Your task to perform on an android device: turn off location history Image 0: 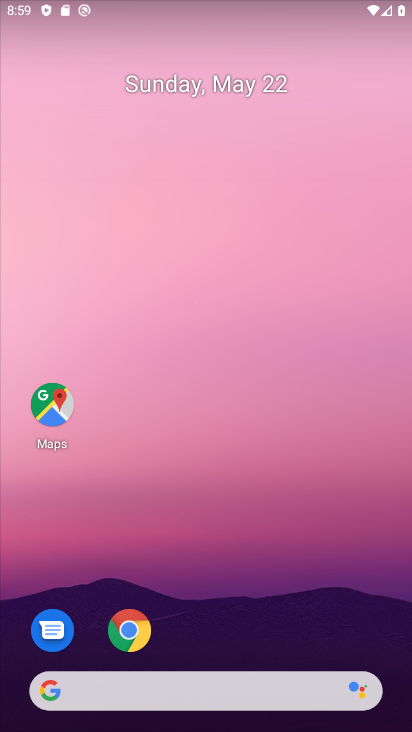
Step 0: drag from (397, 627) to (388, 116)
Your task to perform on an android device: turn off location history Image 1: 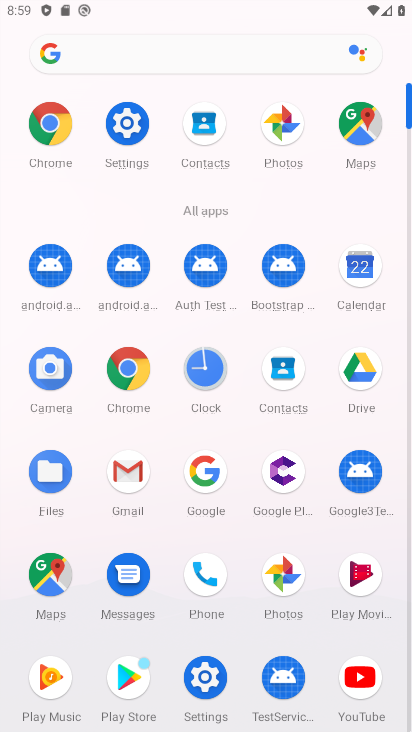
Step 1: click (132, 118)
Your task to perform on an android device: turn off location history Image 2: 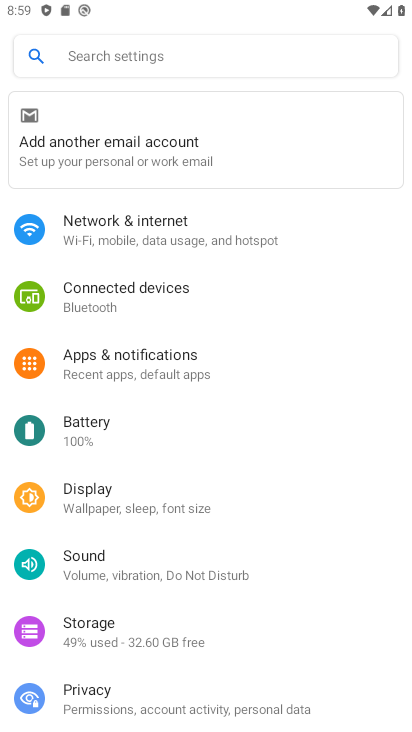
Step 2: drag from (346, 684) to (345, 247)
Your task to perform on an android device: turn off location history Image 3: 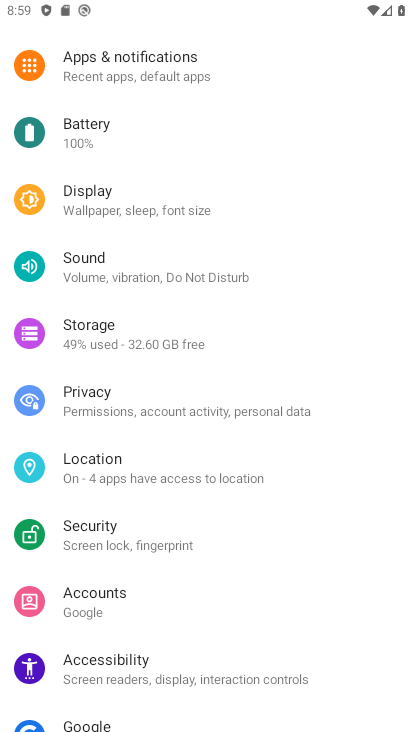
Step 3: click (132, 588)
Your task to perform on an android device: turn off location history Image 4: 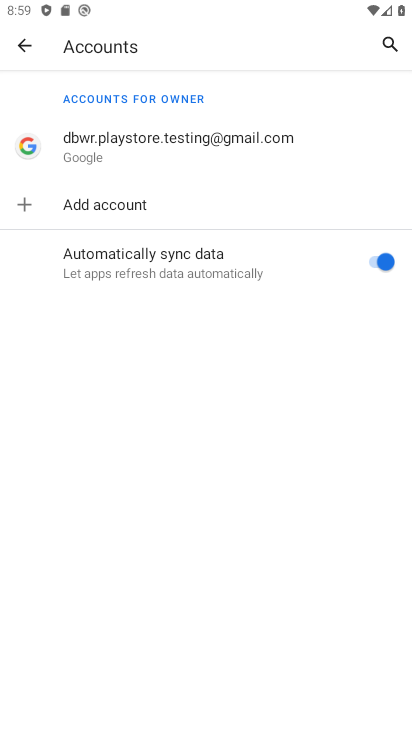
Step 4: click (27, 47)
Your task to perform on an android device: turn off location history Image 5: 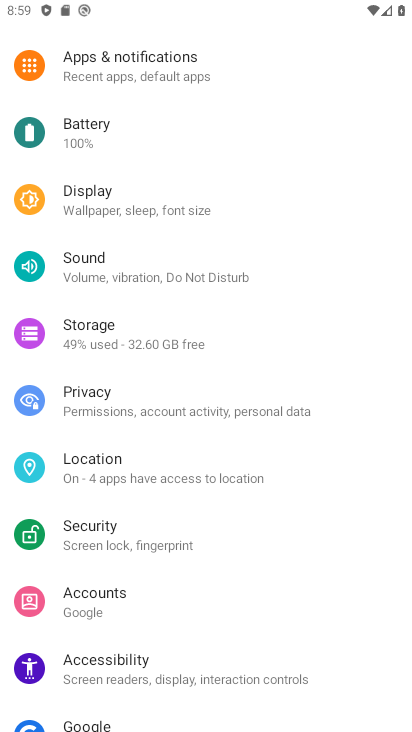
Step 5: click (101, 469)
Your task to perform on an android device: turn off location history Image 6: 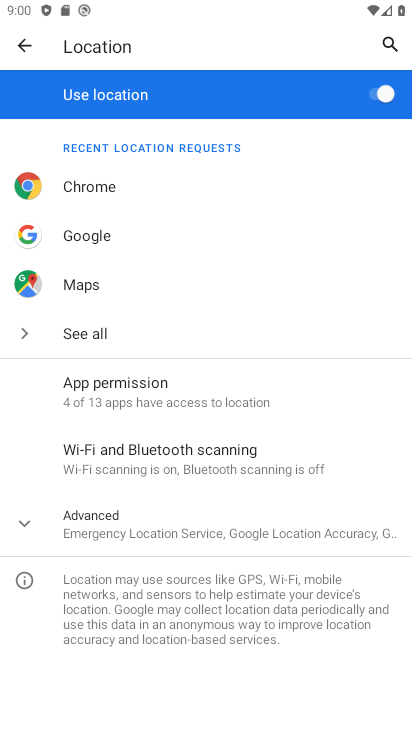
Step 6: click (28, 524)
Your task to perform on an android device: turn off location history Image 7: 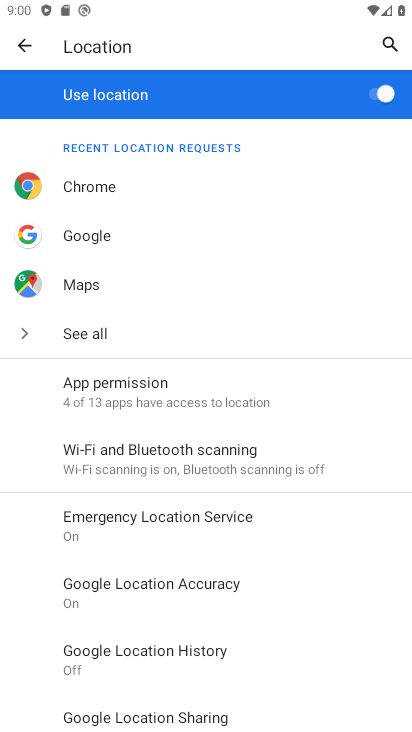
Step 7: drag from (382, 681) to (372, 214)
Your task to perform on an android device: turn off location history Image 8: 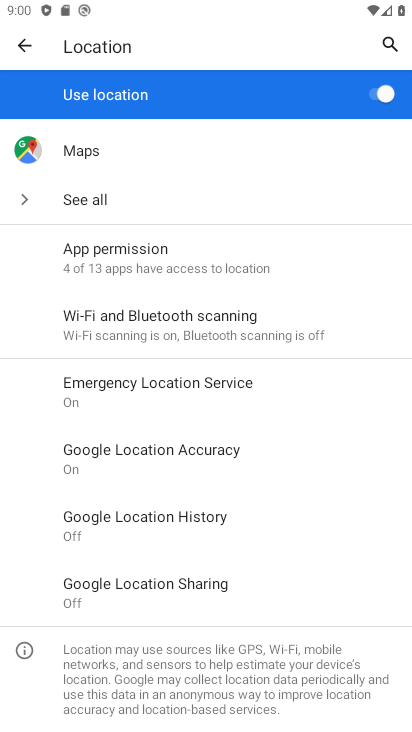
Step 8: click (169, 520)
Your task to perform on an android device: turn off location history Image 9: 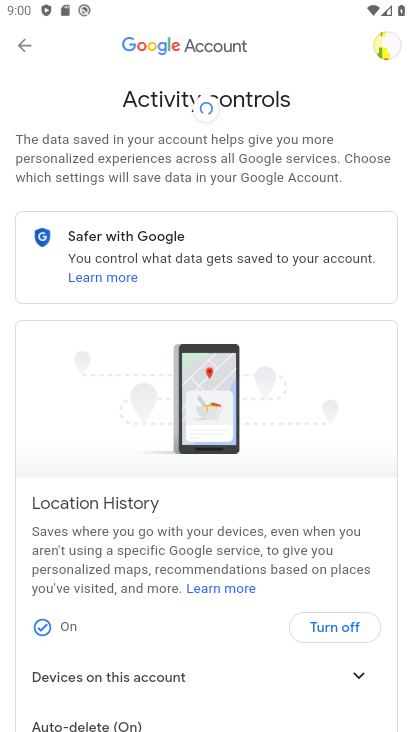
Step 9: task complete